Your task to perform on an android device: turn on improve location accuracy Image 0: 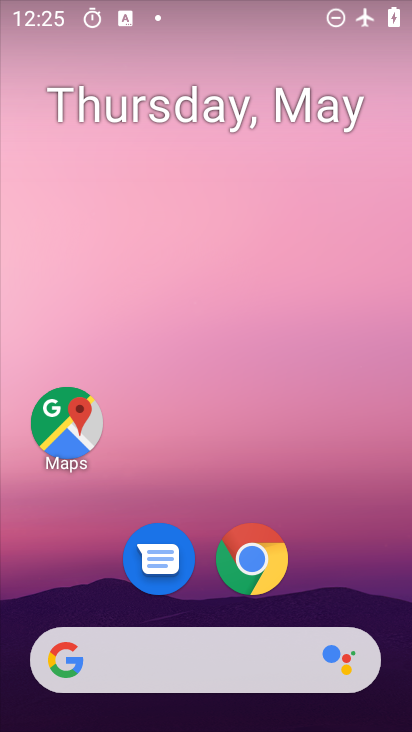
Step 0: drag from (218, 631) to (221, 189)
Your task to perform on an android device: turn on improve location accuracy Image 1: 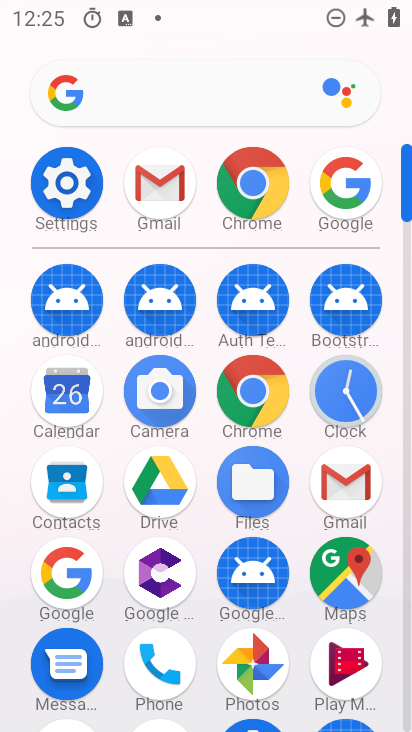
Step 1: click (87, 183)
Your task to perform on an android device: turn on improve location accuracy Image 2: 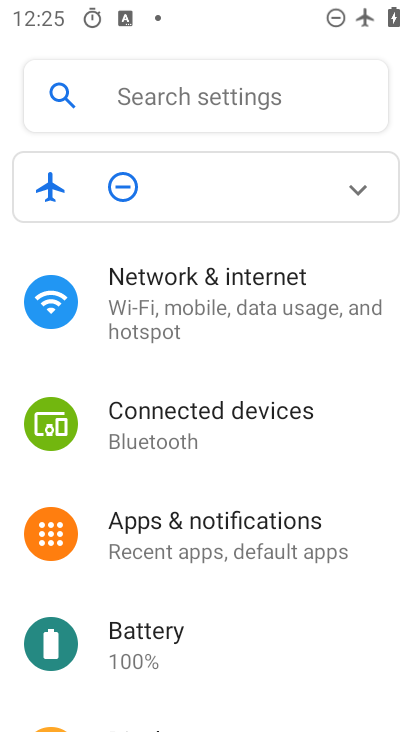
Step 2: drag from (173, 609) to (220, 247)
Your task to perform on an android device: turn on improve location accuracy Image 3: 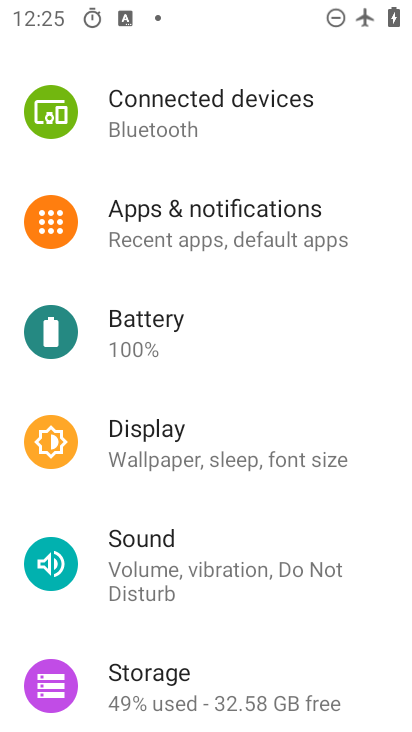
Step 3: drag from (227, 579) to (279, 203)
Your task to perform on an android device: turn on improve location accuracy Image 4: 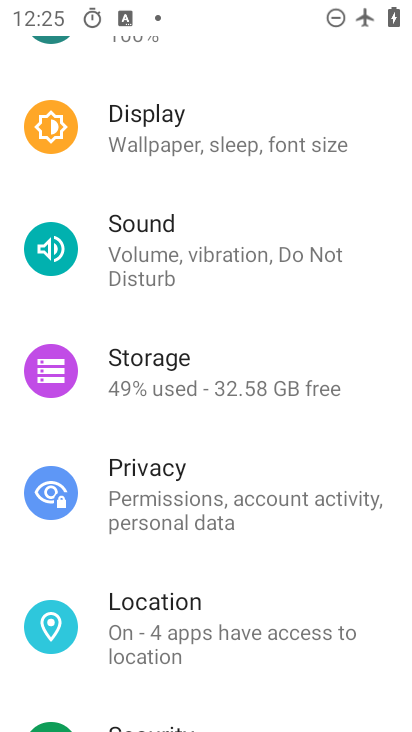
Step 4: click (191, 610)
Your task to perform on an android device: turn on improve location accuracy Image 5: 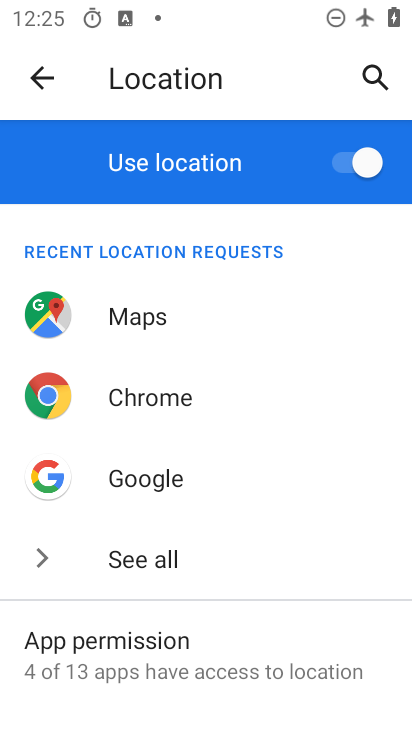
Step 5: drag from (198, 569) to (273, 293)
Your task to perform on an android device: turn on improve location accuracy Image 6: 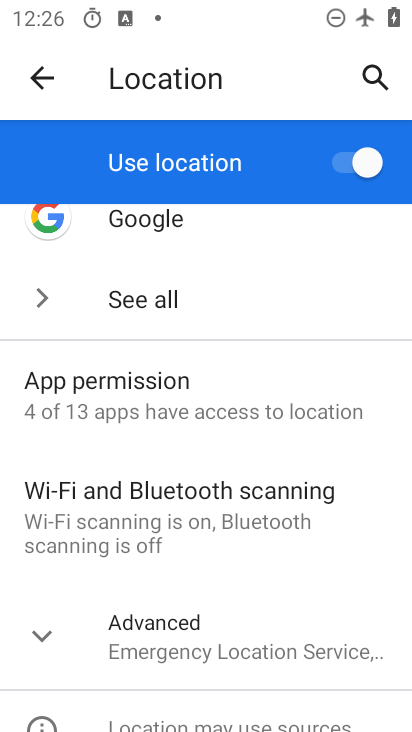
Step 6: click (221, 635)
Your task to perform on an android device: turn on improve location accuracy Image 7: 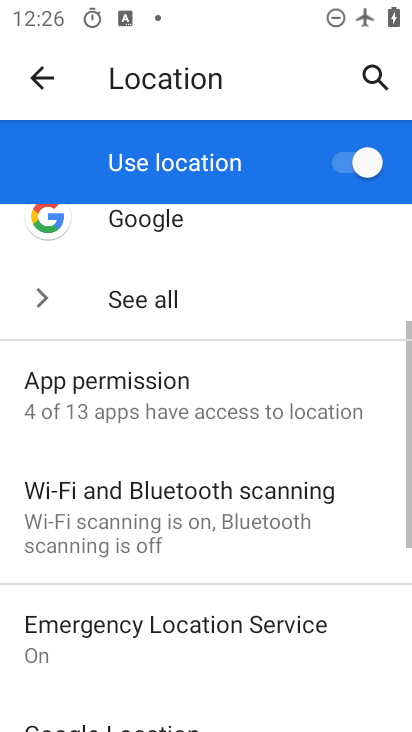
Step 7: drag from (222, 633) to (222, 381)
Your task to perform on an android device: turn on improve location accuracy Image 8: 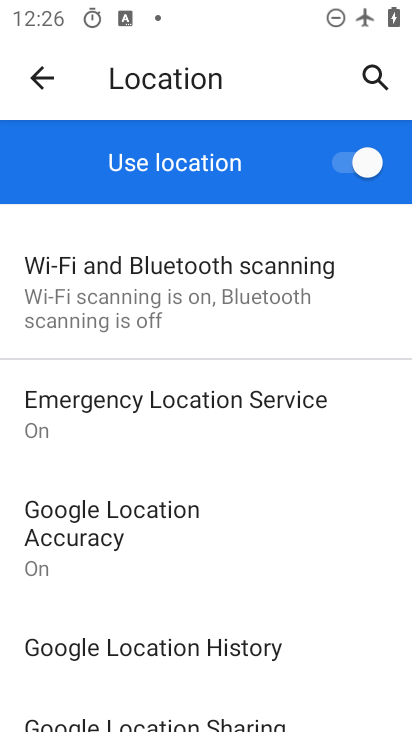
Step 8: click (200, 532)
Your task to perform on an android device: turn on improve location accuracy Image 9: 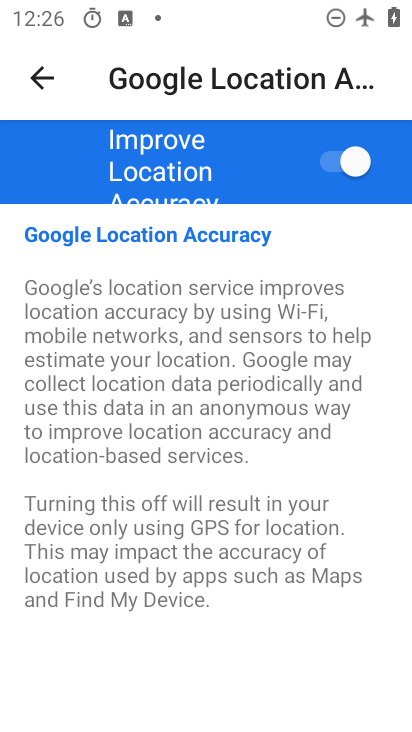
Step 9: task complete